Your task to perform on an android device: install app "Calculator" Image 0: 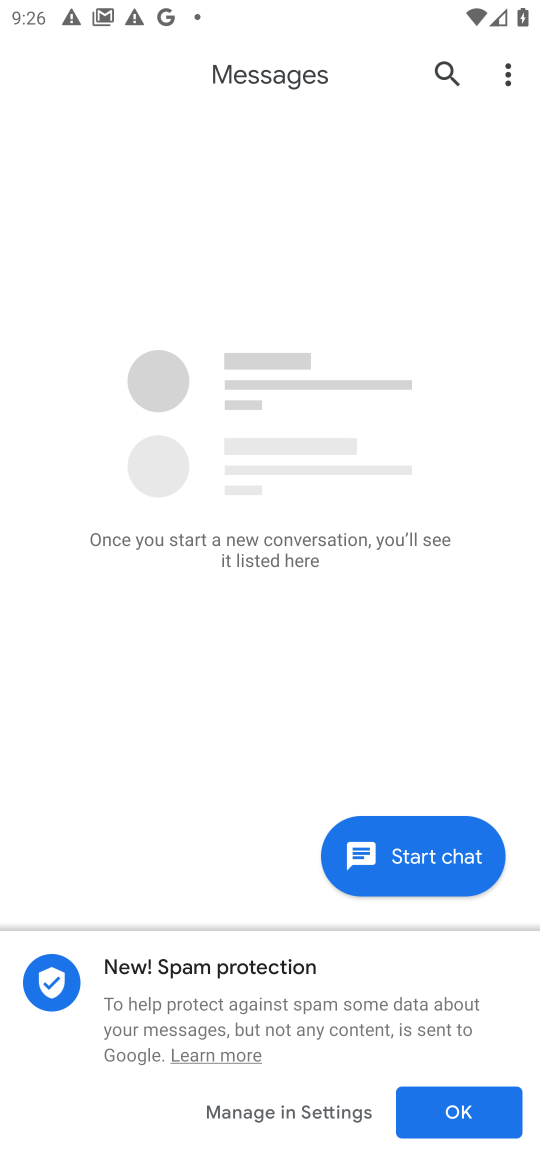
Step 0: press home button
Your task to perform on an android device: install app "Calculator" Image 1: 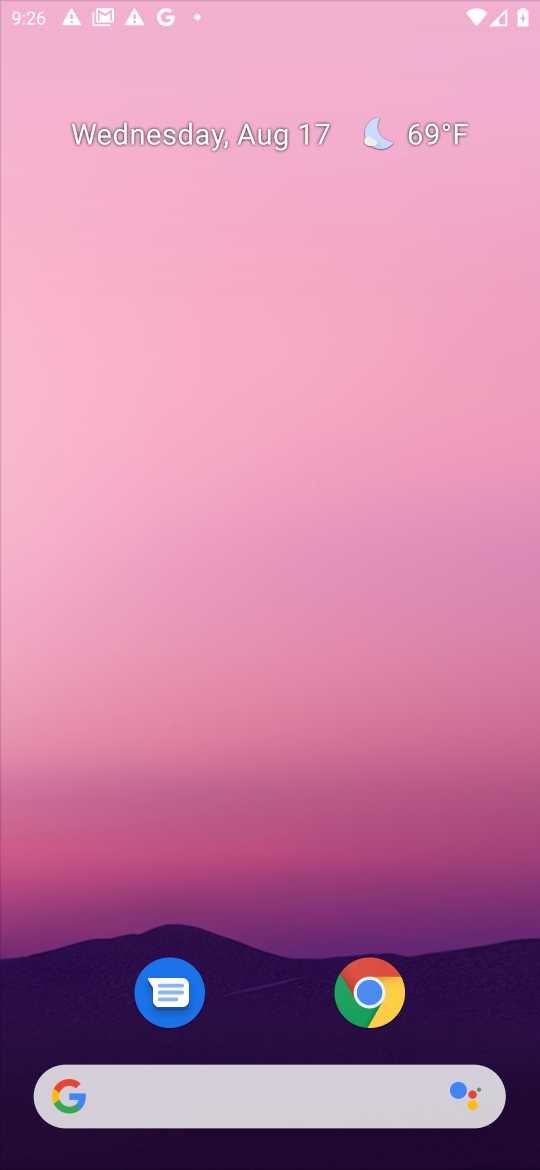
Step 1: drag from (498, 1014) to (223, 95)
Your task to perform on an android device: install app "Calculator" Image 2: 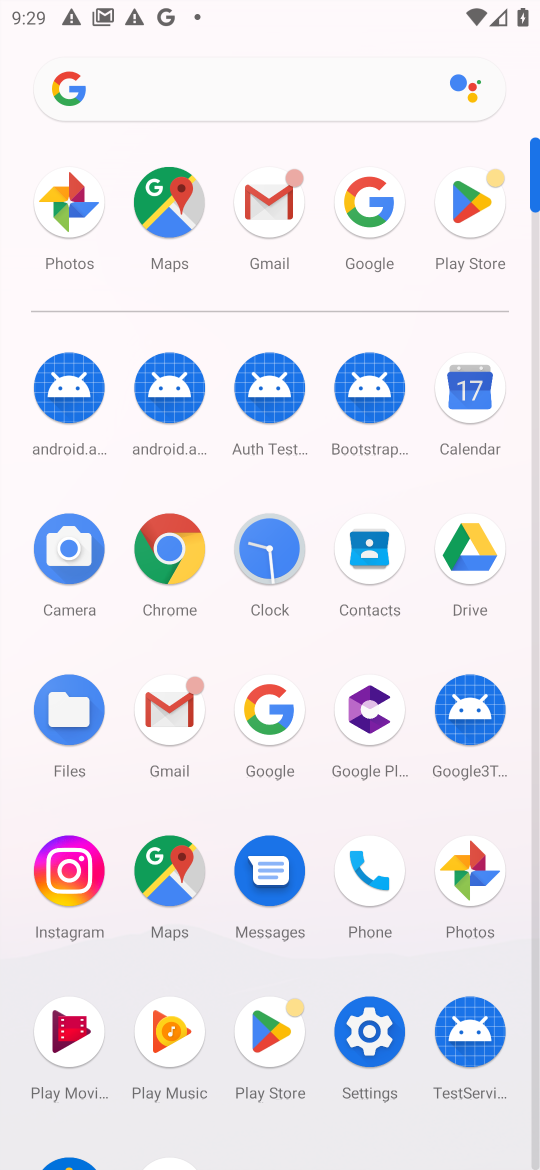
Step 2: click (277, 1027)
Your task to perform on an android device: install app "Calculator" Image 3: 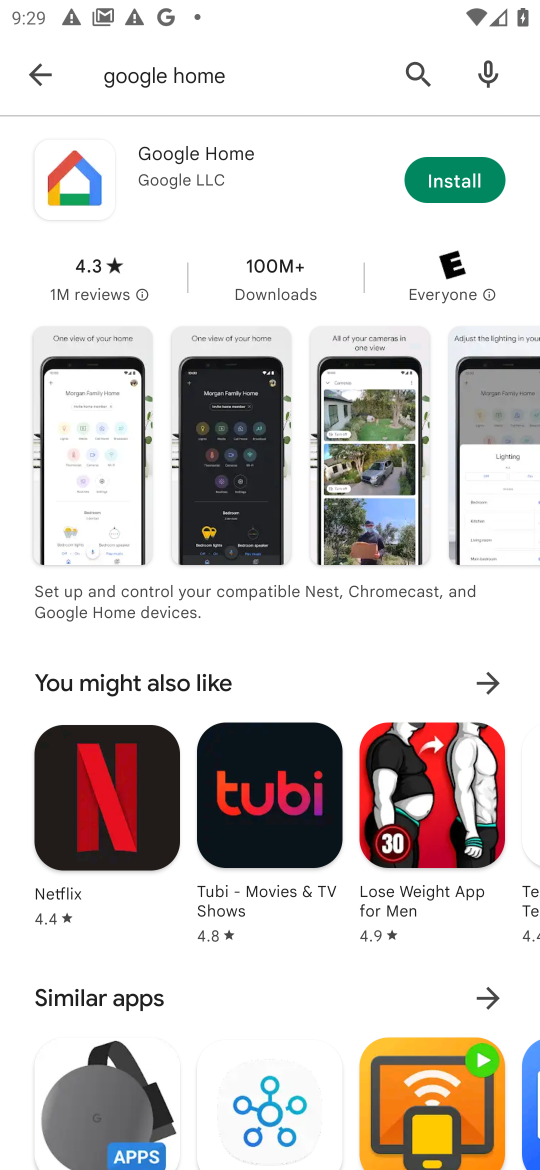
Step 3: press back button
Your task to perform on an android device: install app "Calculator" Image 4: 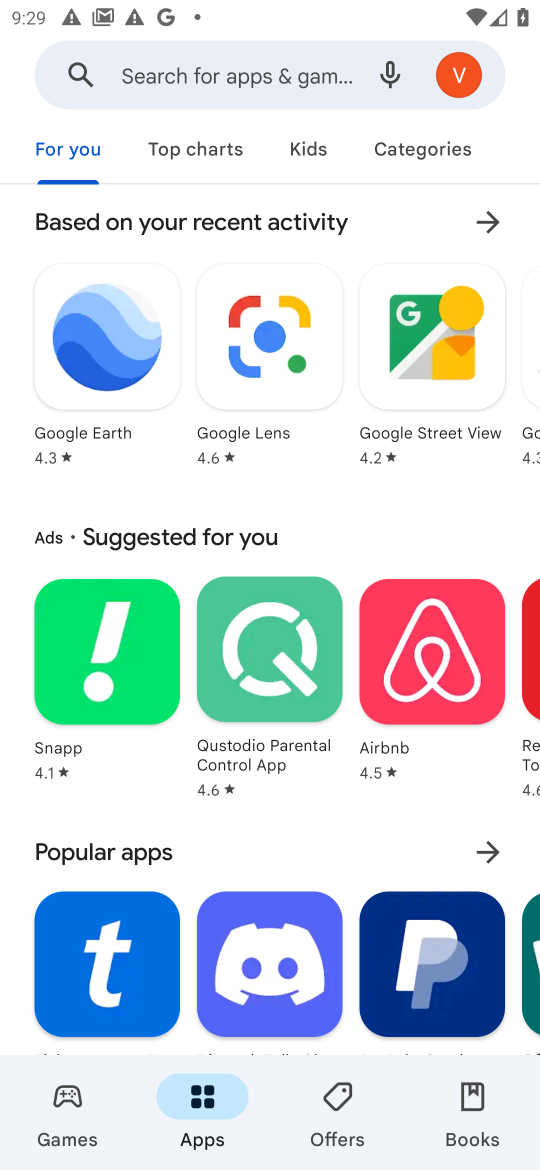
Step 4: click (167, 62)
Your task to perform on an android device: install app "Calculator" Image 5: 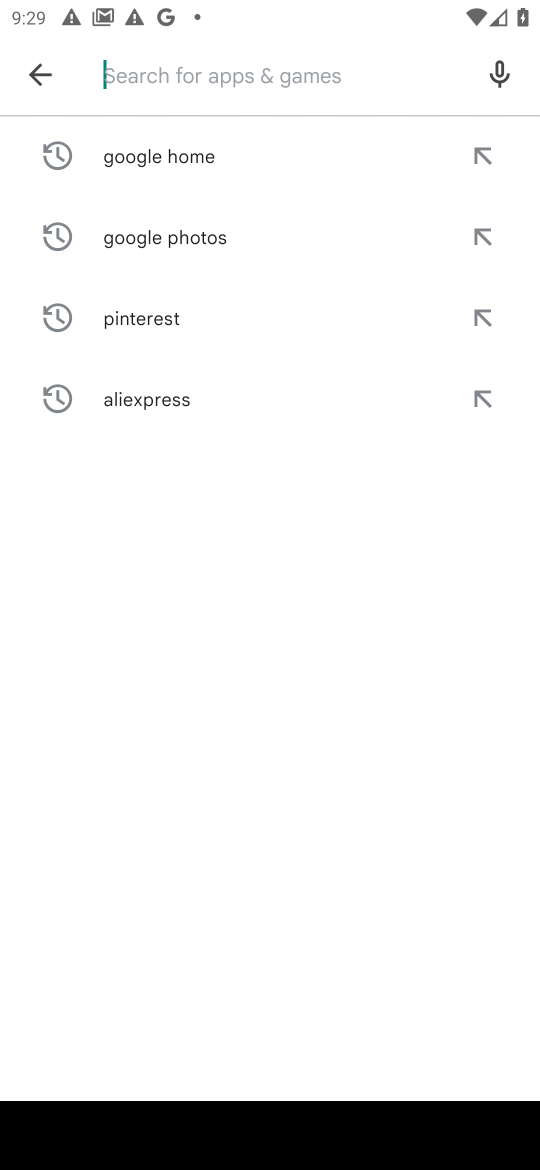
Step 5: type "Calculator"
Your task to perform on an android device: install app "Calculator" Image 6: 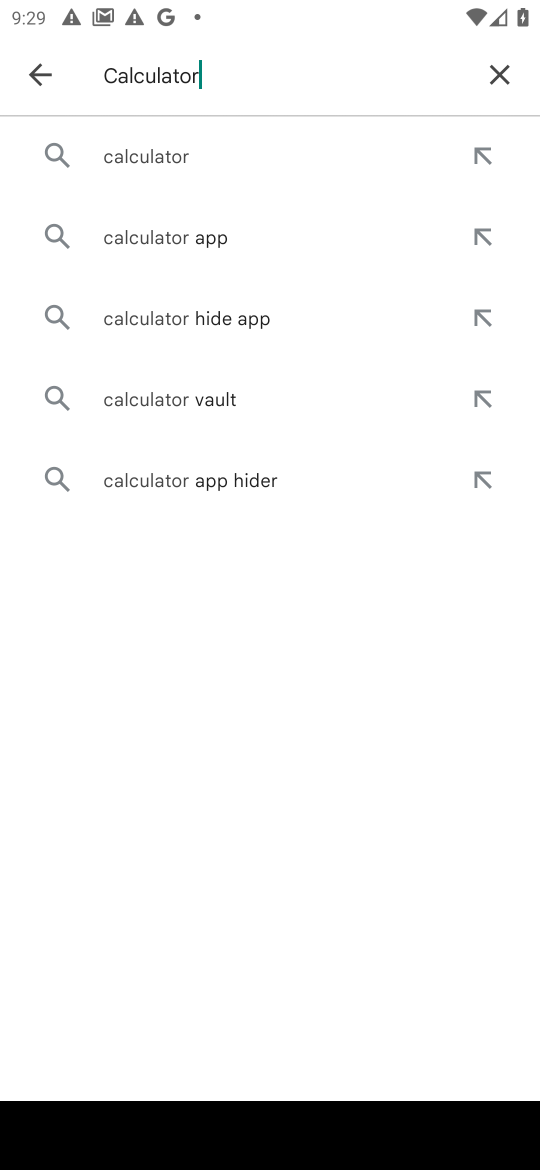
Step 6: click (189, 151)
Your task to perform on an android device: install app "Calculator" Image 7: 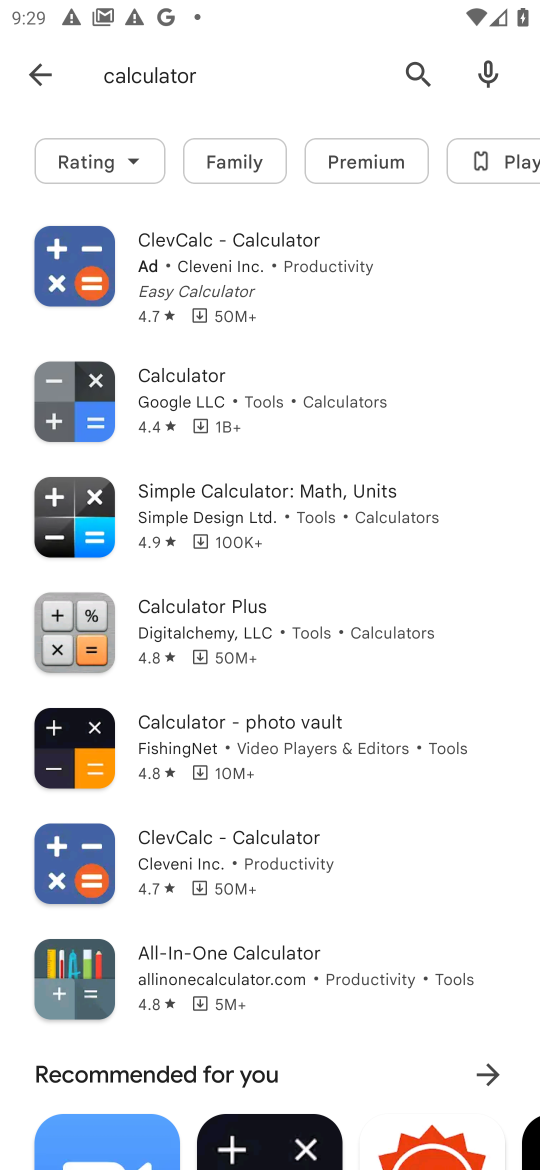
Step 7: click (254, 398)
Your task to perform on an android device: install app "Calculator" Image 8: 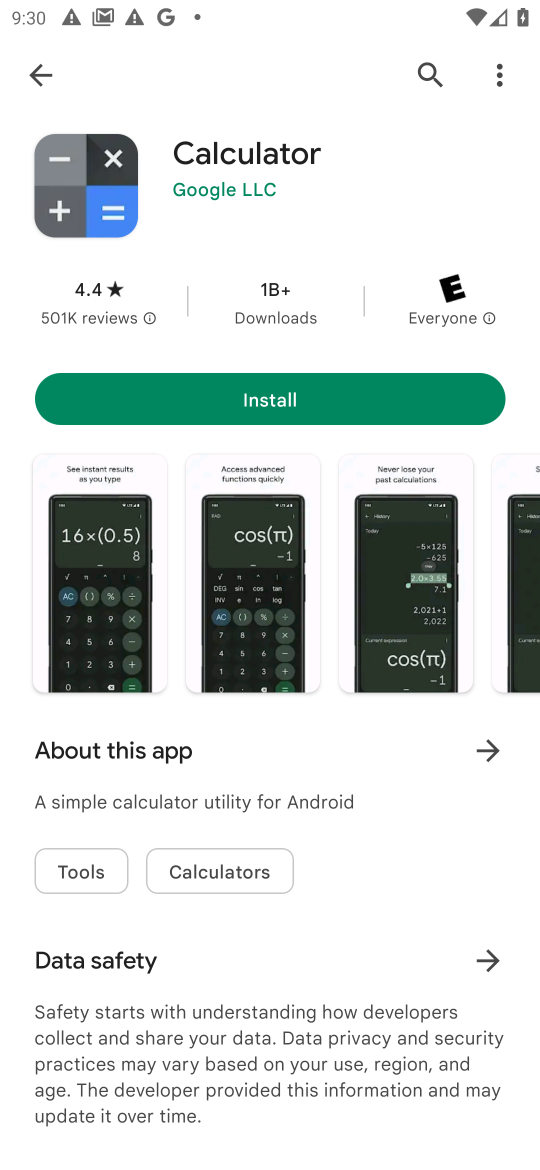
Step 8: click (247, 402)
Your task to perform on an android device: install app "Calculator" Image 9: 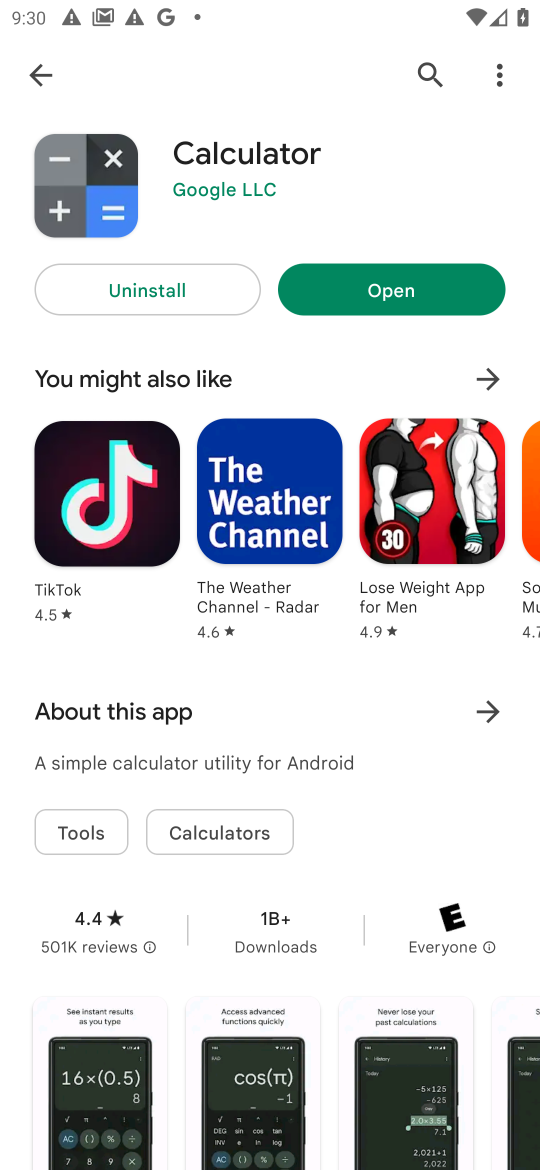
Step 9: task complete